Your task to perform on an android device: see sites visited before in the chrome app Image 0: 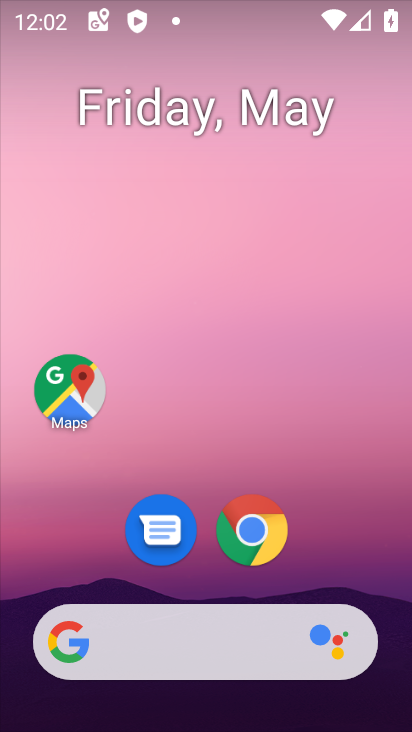
Step 0: click (252, 530)
Your task to perform on an android device: see sites visited before in the chrome app Image 1: 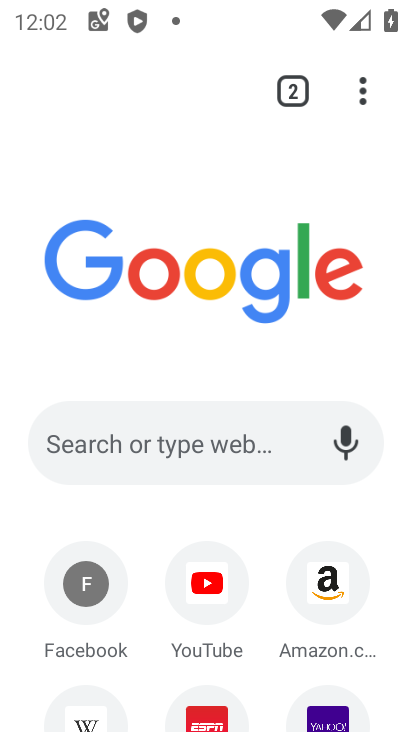
Step 1: click (364, 89)
Your task to perform on an android device: see sites visited before in the chrome app Image 2: 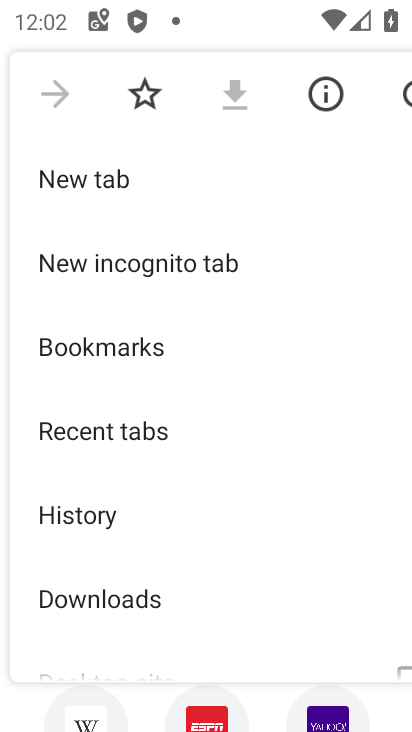
Step 2: click (79, 513)
Your task to perform on an android device: see sites visited before in the chrome app Image 3: 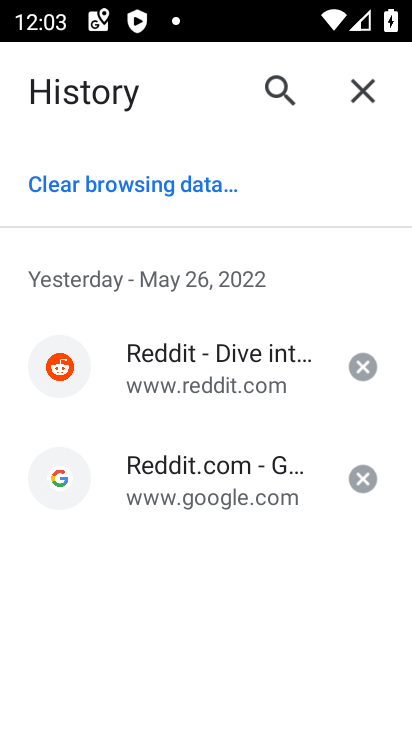
Step 3: task complete